Your task to perform on an android device: Open settings on Google Maps Image 0: 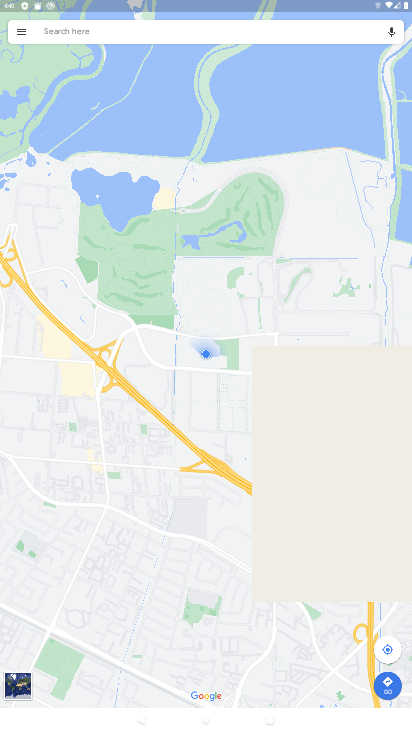
Step 0: click (15, 25)
Your task to perform on an android device: Open settings on Google Maps Image 1: 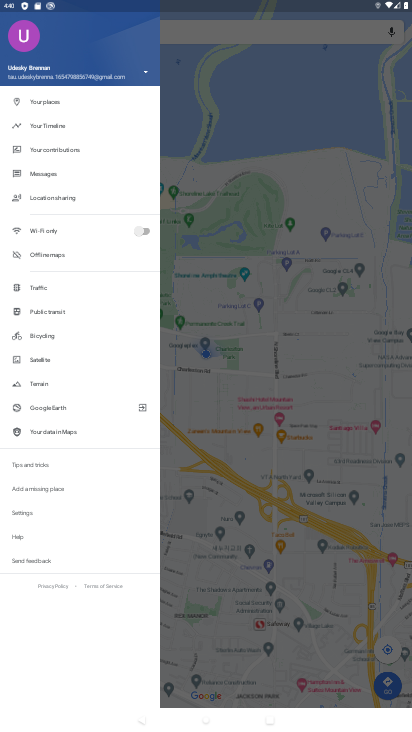
Step 1: click (21, 507)
Your task to perform on an android device: Open settings on Google Maps Image 2: 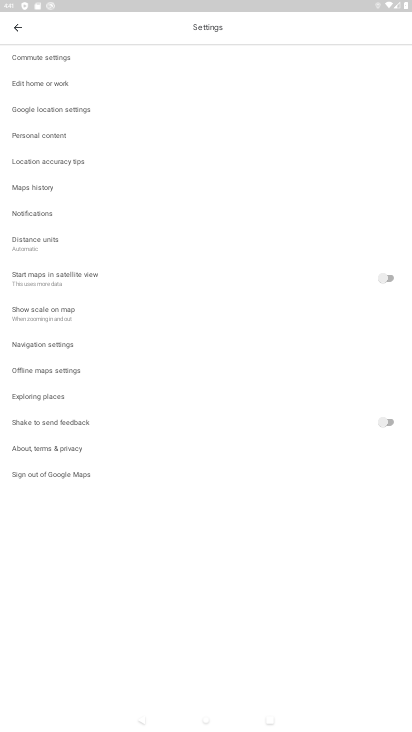
Step 2: task complete